Your task to perform on an android device: open sync settings in chrome Image 0: 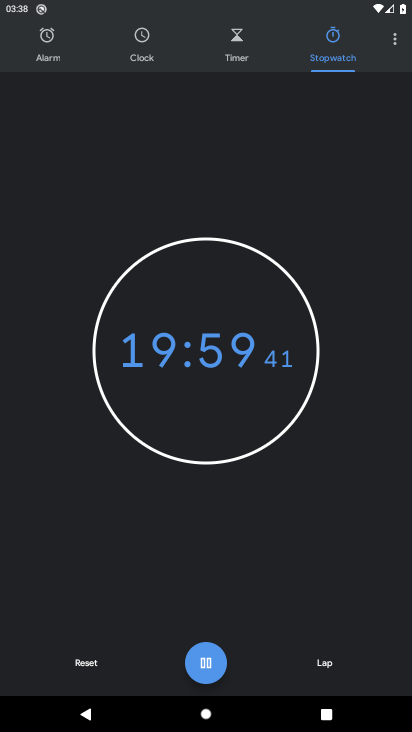
Step 0: press home button
Your task to perform on an android device: open sync settings in chrome Image 1: 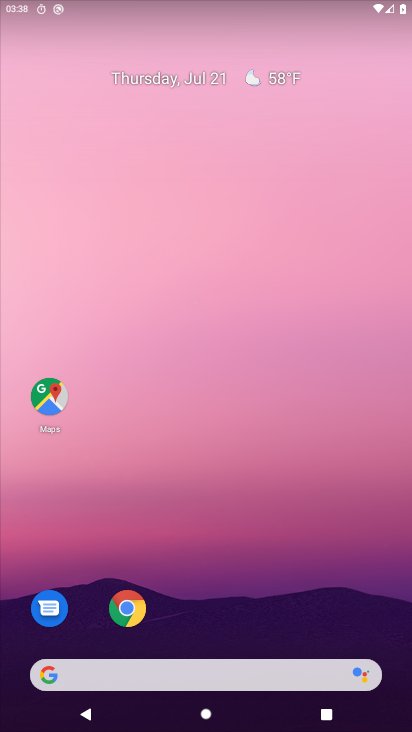
Step 1: click (123, 605)
Your task to perform on an android device: open sync settings in chrome Image 2: 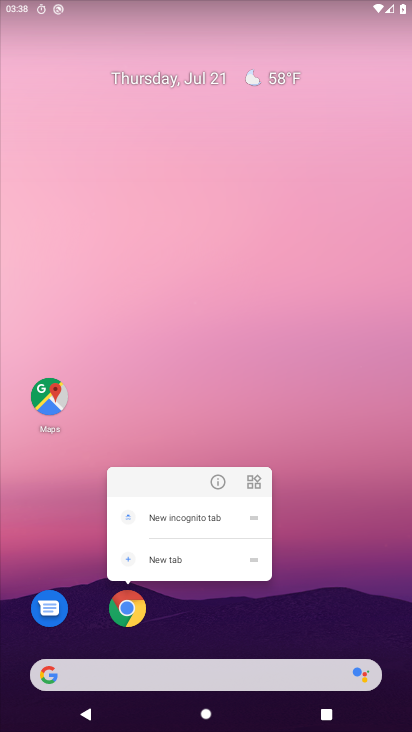
Step 2: click (125, 610)
Your task to perform on an android device: open sync settings in chrome Image 3: 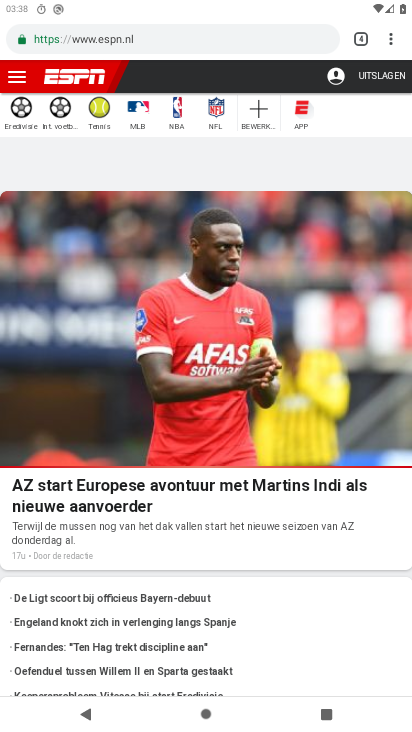
Step 3: click (389, 43)
Your task to perform on an android device: open sync settings in chrome Image 4: 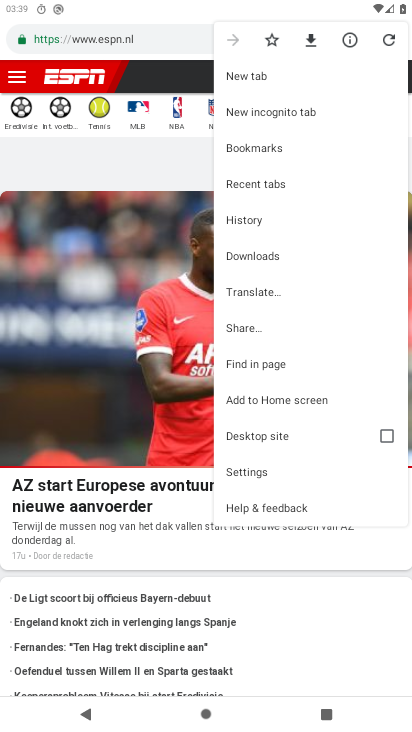
Step 4: click (255, 467)
Your task to perform on an android device: open sync settings in chrome Image 5: 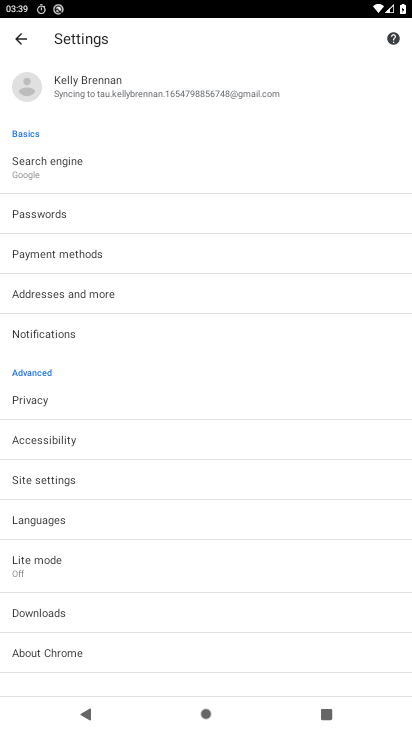
Step 5: click (168, 79)
Your task to perform on an android device: open sync settings in chrome Image 6: 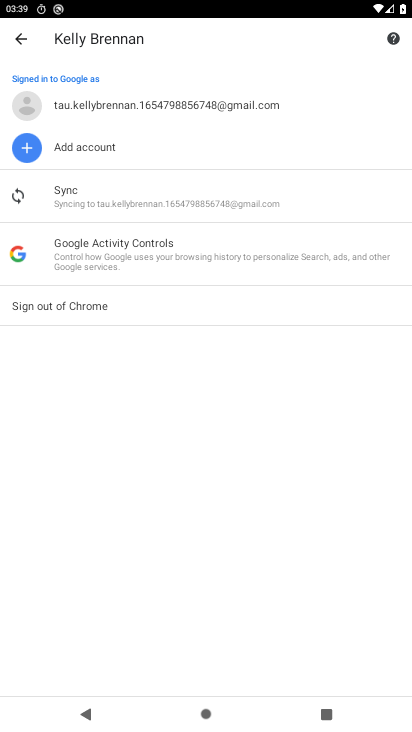
Step 6: click (113, 188)
Your task to perform on an android device: open sync settings in chrome Image 7: 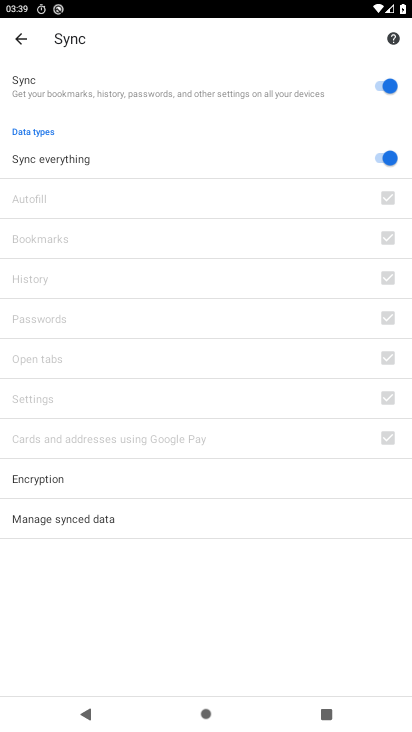
Step 7: task complete